Your task to perform on an android device: Go to network settings Image 0: 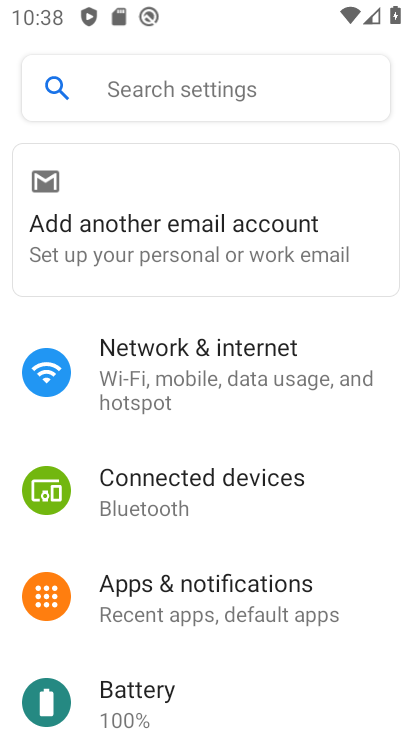
Step 0: click (152, 357)
Your task to perform on an android device: Go to network settings Image 1: 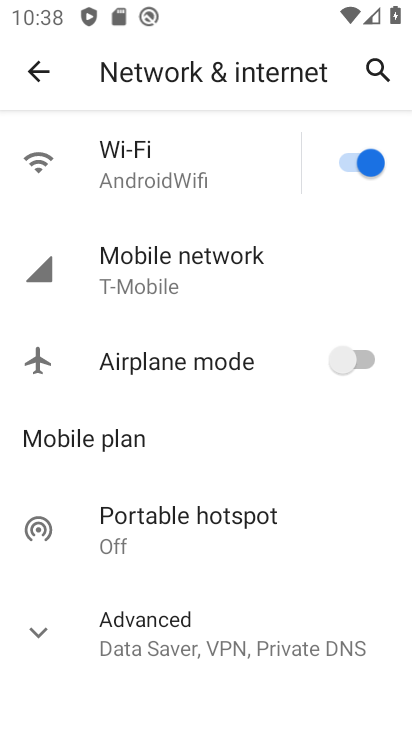
Step 1: click (170, 267)
Your task to perform on an android device: Go to network settings Image 2: 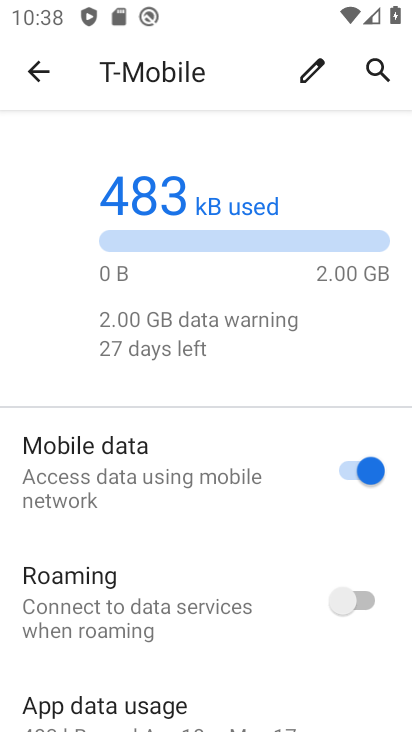
Step 2: task complete